Your task to perform on an android device: uninstall "Clock" Image 0: 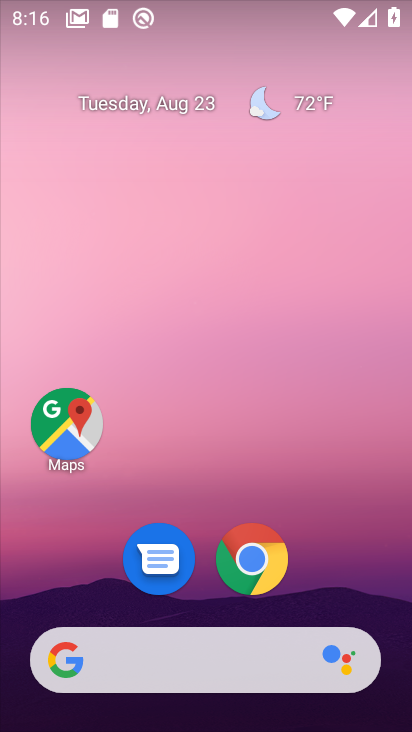
Step 0: drag from (211, 463) to (212, 57)
Your task to perform on an android device: uninstall "Clock" Image 1: 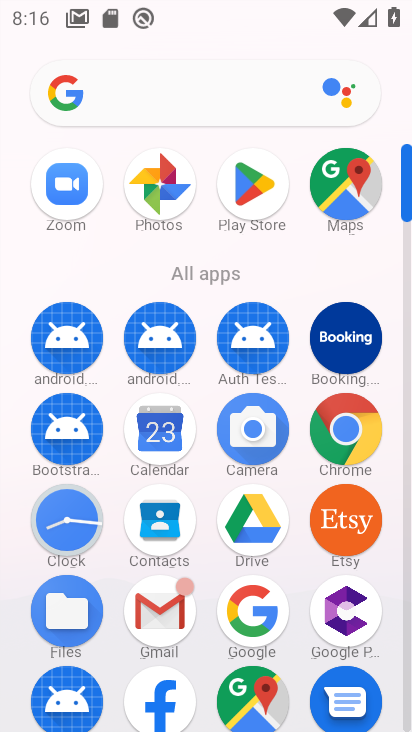
Step 1: click (253, 165)
Your task to perform on an android device: uninstall "Clock" Image 2: 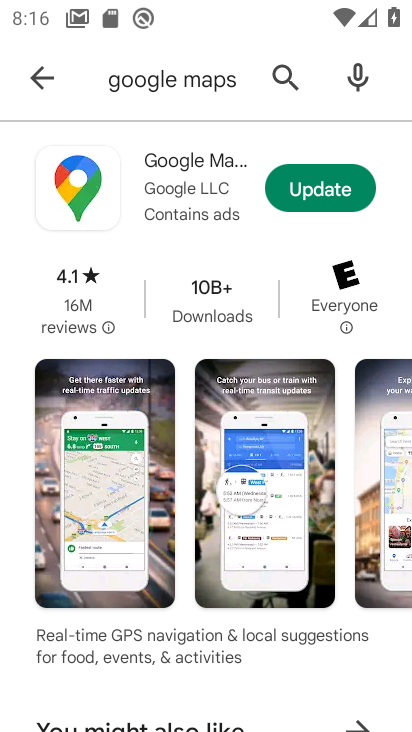
Step 2: click (289, 77)
Your task to perform on an android device: uninstall "Clock" Image 3: 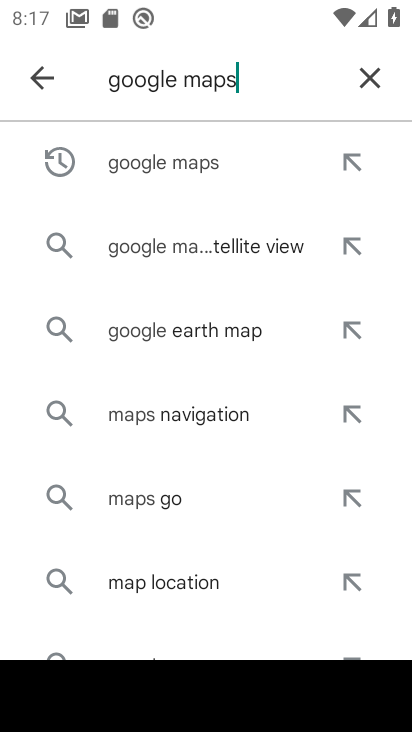
Step 3: click (371, 70)
Your task to perform on an android device: uninstall "Clock" Image 4: 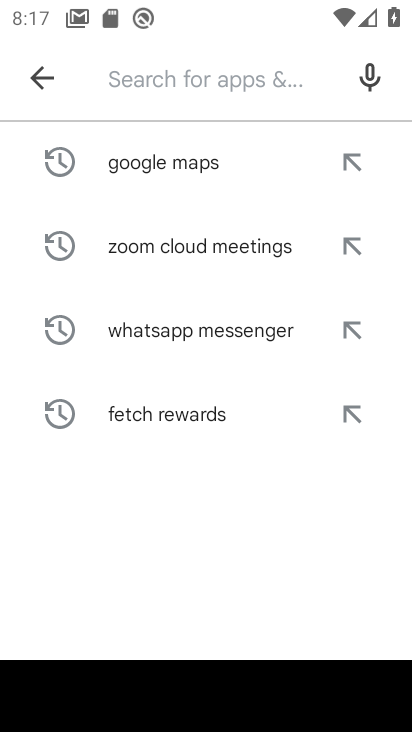
Step 4: type "Clock"
Your task to perform on an android device: uninstall "Clock" Image 5: 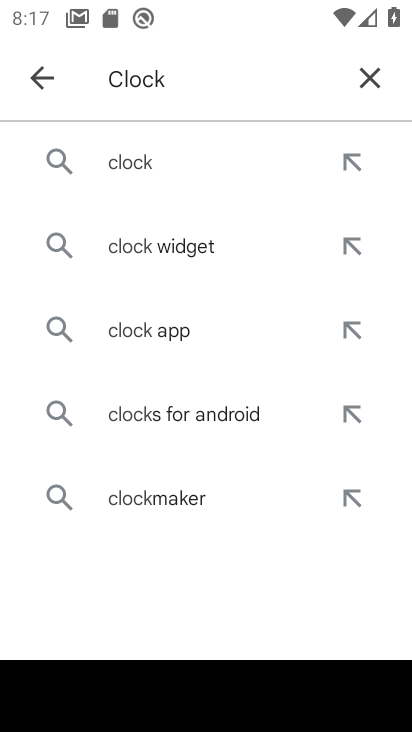
Step 5: click (125, 166)
Your task to perform on an android device: uninstall "Clock" Image 6: 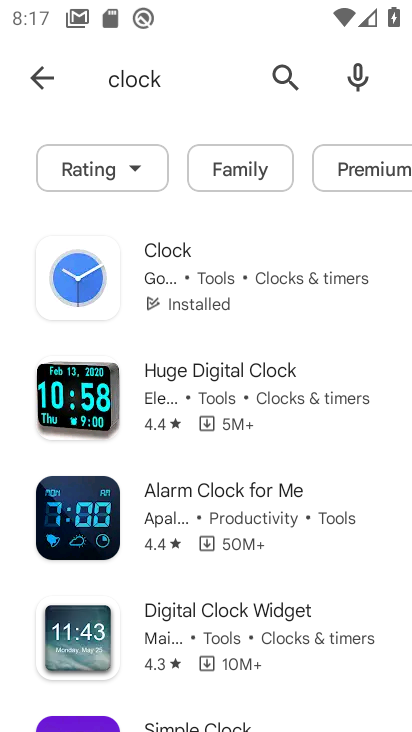
Step 6: click (232, 242)
Your task to perform on an android device: uninstall "Clock" Image 7: 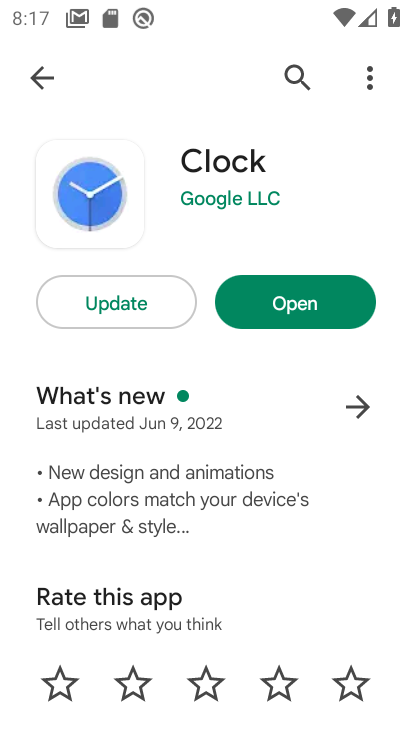
Step 7: click (153, 308)
Your task to perform on an android device: uninstall "Clock" Image 8: 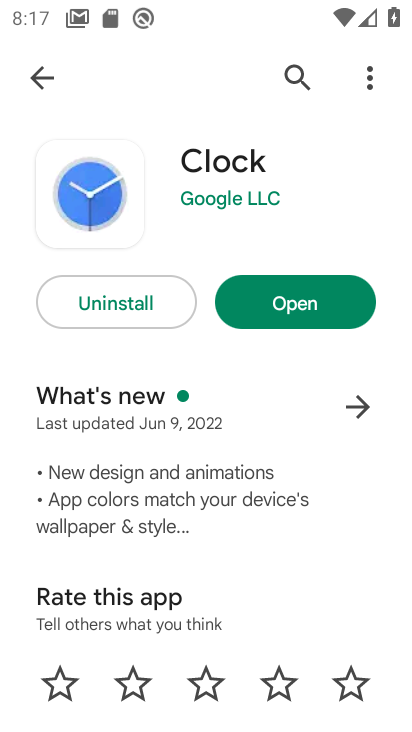
Step 8: click (173, 306)
Your task to perform on an android device: uninstall "Clock" Image 9: 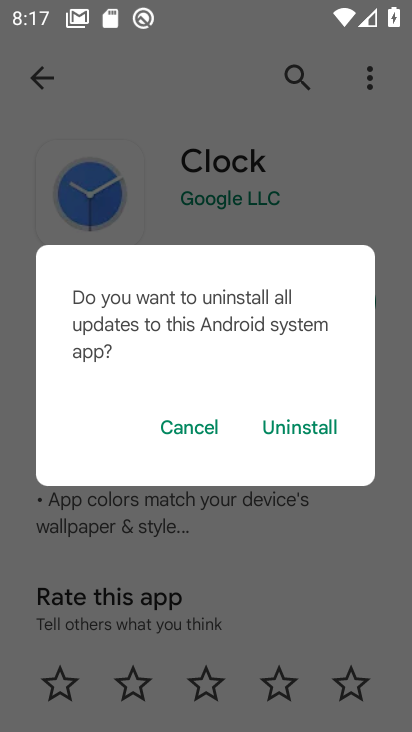
Step 9: click (259, 427)
Your task to perform on an android device: uninstall "Clock" Image 10: 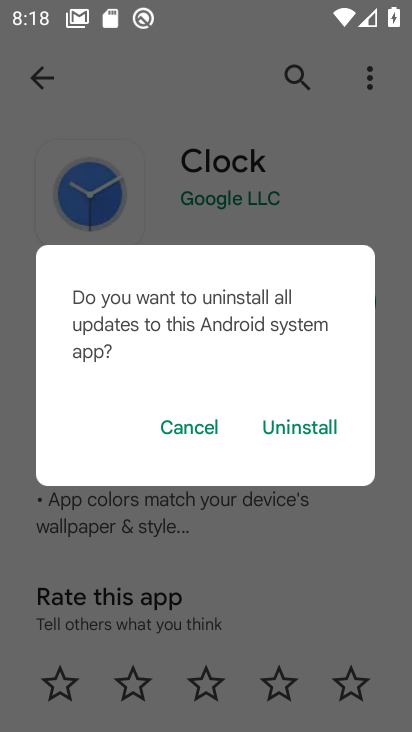
Step 10: click (289, 433)
Your task to perform on an android device: uninstall "Clock" Image 11: 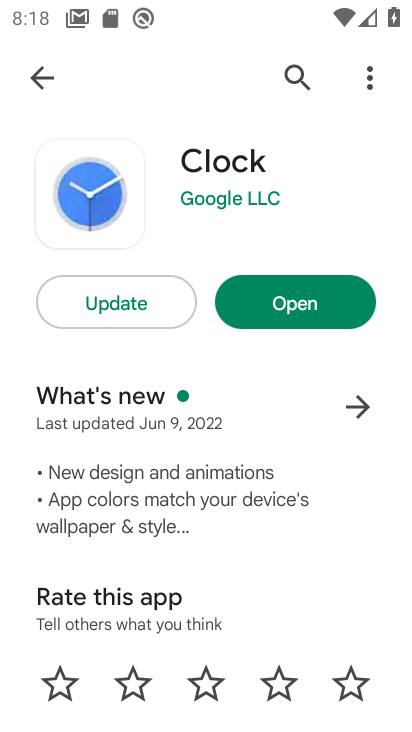
Step 11: task complete